Your task to perform on an android device: Go to Wikipedia Image 0: 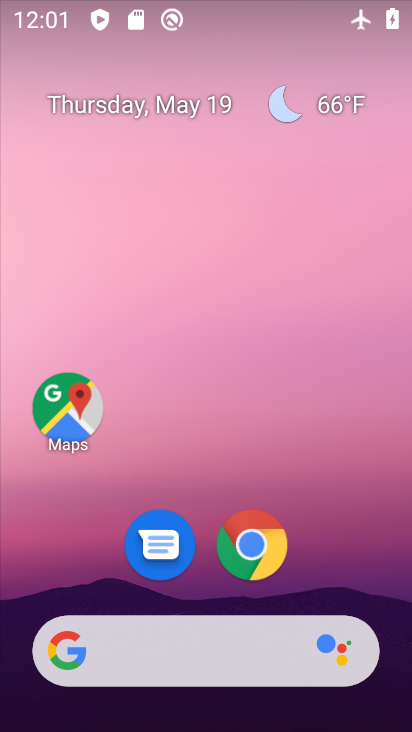
Step 0: click (260, 649)
Your task to perform on an android device: Go to Wikipedia Image 1: 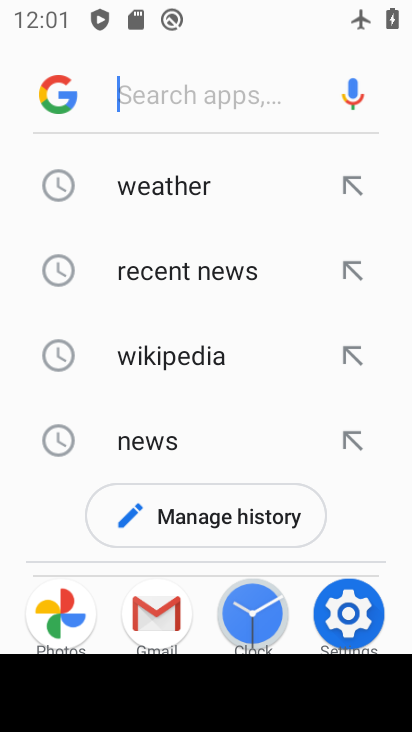
Step 1: click (216, 347)
Your task to perform on an android device: Go to Wikipedia Image 2: 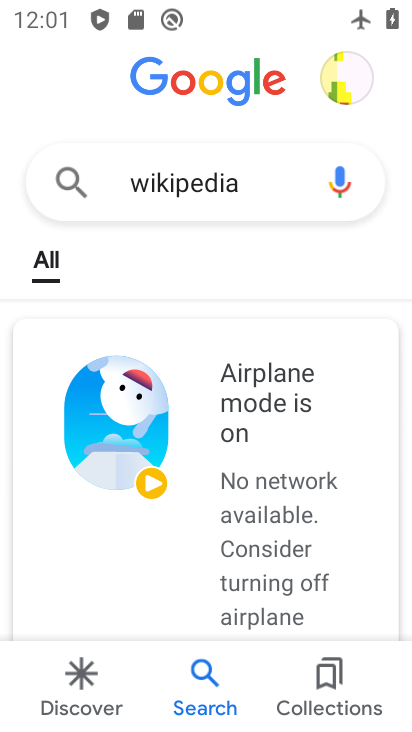
Step 2: task complete